Your task to perform on an android device: turn off improve location accuracy Image 0: 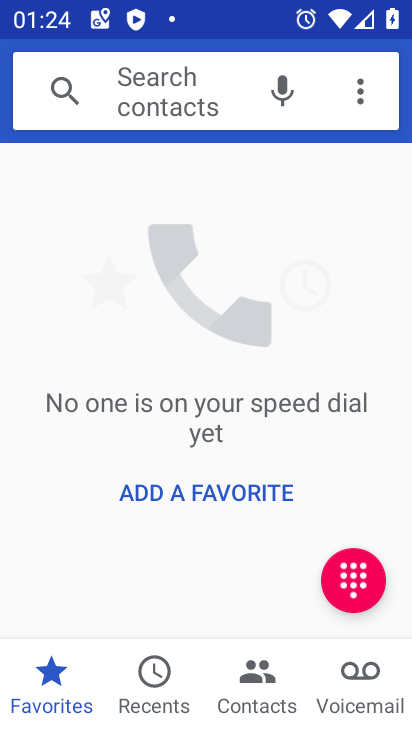
Step 0: press home button
Your task to perform on an android device: turn off improve location accuracy Image 1: 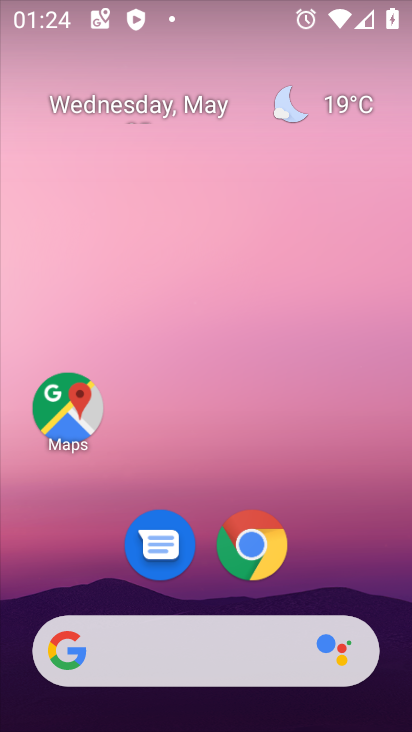
Step 1: drag from (326, 538) to (258, 13)
Your task to perform on an android device: turn off improve location accuracy Image 2: 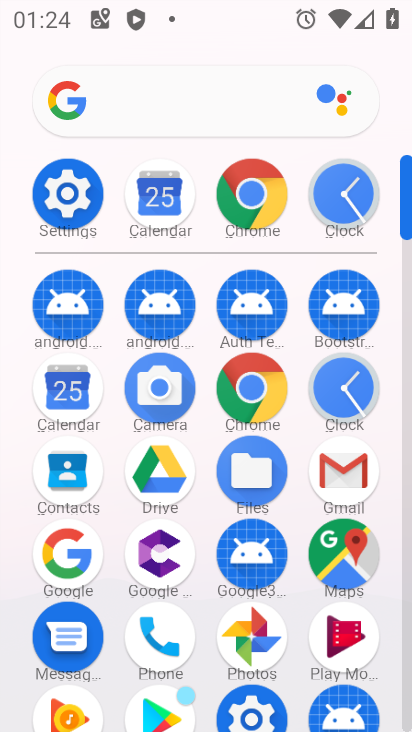
Step 2: click (85, 182)
Your task to perform on an android device: turn off improve location accuracy Image 3: 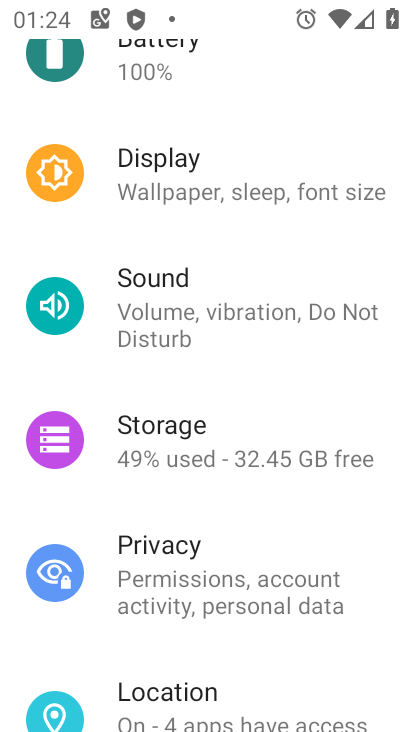
Step 3: drag from (282, 265) to (323, 113)
Your task to perform on an android device: turn off improve location accuracy Image 4: 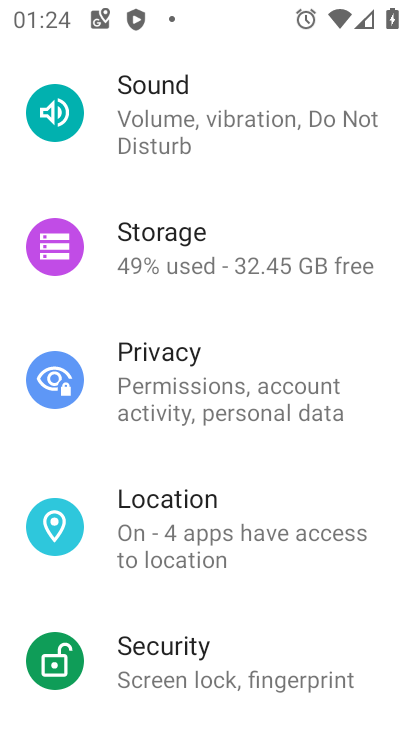
Step 4: drag from (252, 503) to (300, 270)
Your task to perform on an android device: turn off improve location accuracy Image 5: 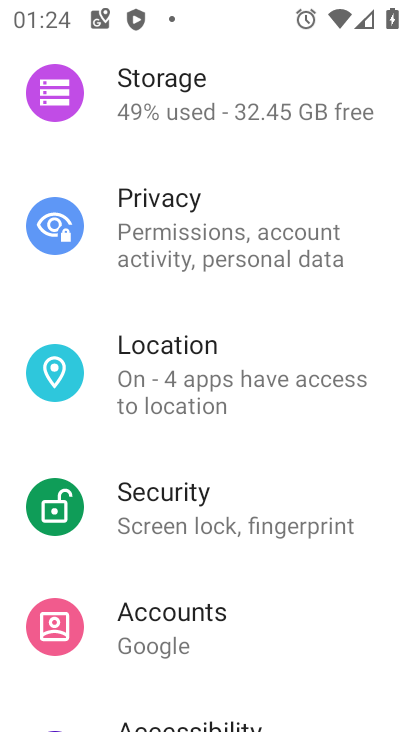
Step 5: click (224, 369)
Your task to perform on an android device: turn off improve location accuracy Image 6: 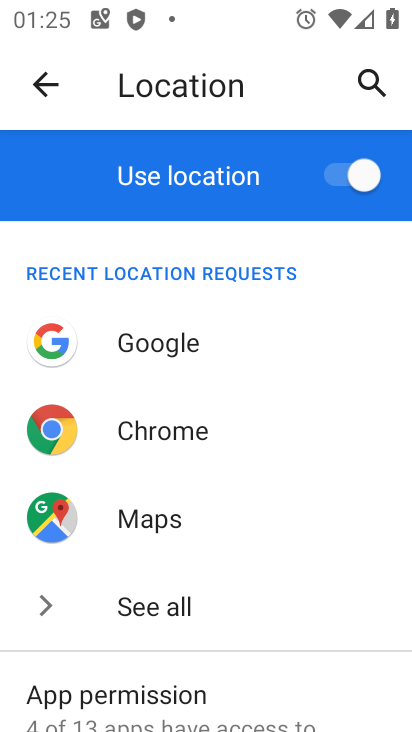
Step 6: drag from (220, 623) to (277, 162)
Your task to perform on an android device: turn off improve location accuracy Image 7: 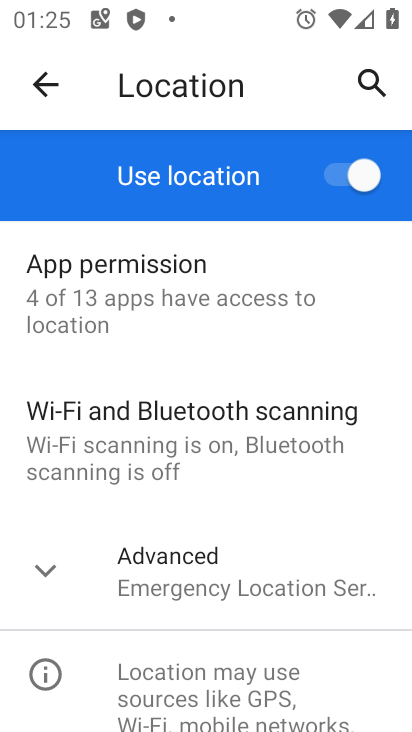
Step 7: click (188, 568)
Your task to perform on an android device: turn off improve location accuracy Image 8: 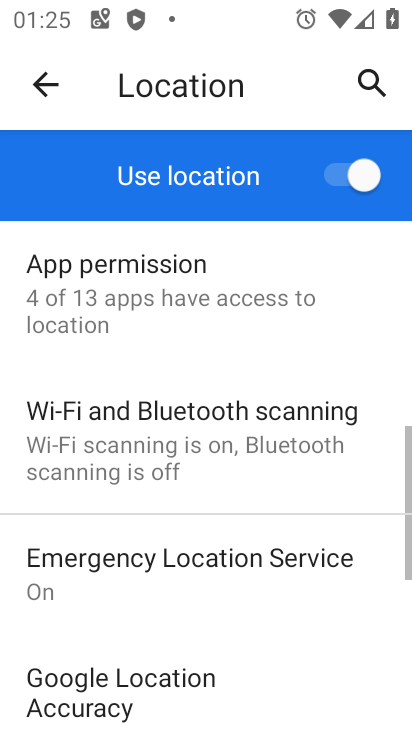
Step 8: drag from (266, 641) to (292, 200)
Your task to perform on an android device: turn off improve location accuracy Image 9: 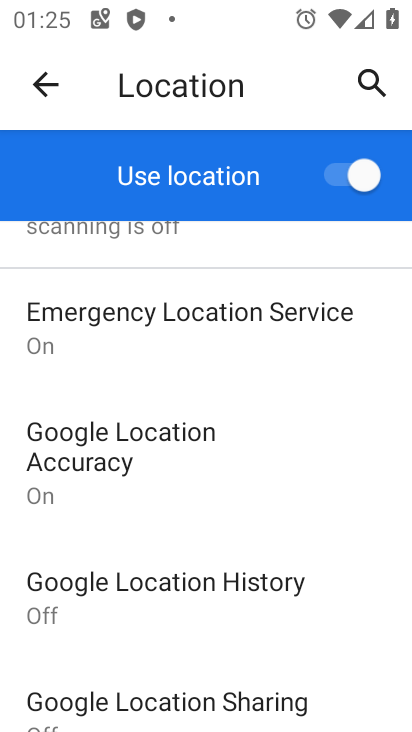
Step 9: click (175, 440)
Your task to perform on an android device: turn off improve location accuracy Image 10: 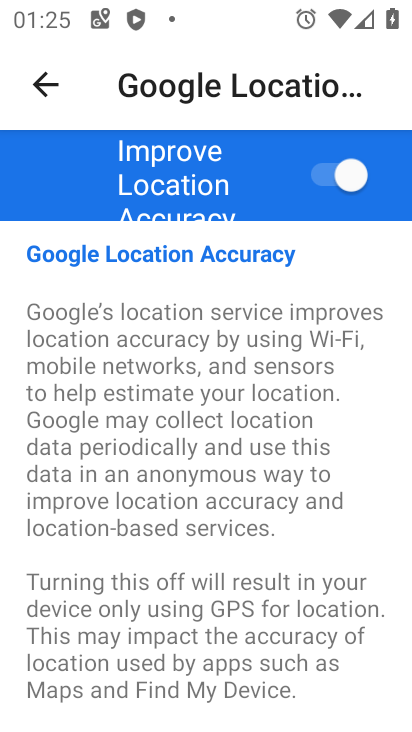
Step 10: click (346, 173)
Your task to perform on an android device: turn off improve location accuracy Image 11: 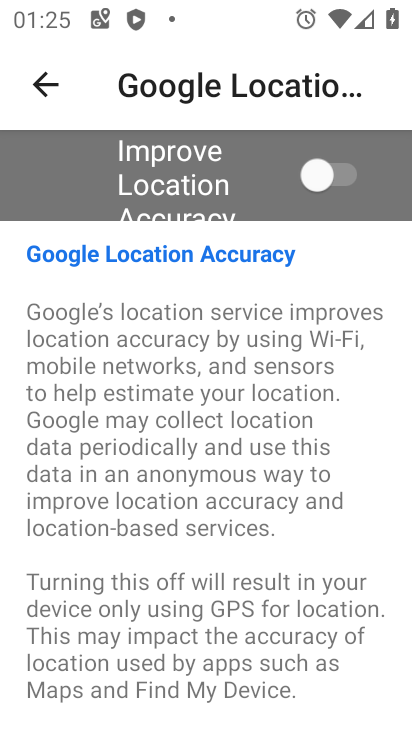
Step 11: task complete